Your task to perform on an android device: open a bookmark in the chrome app Image 0: 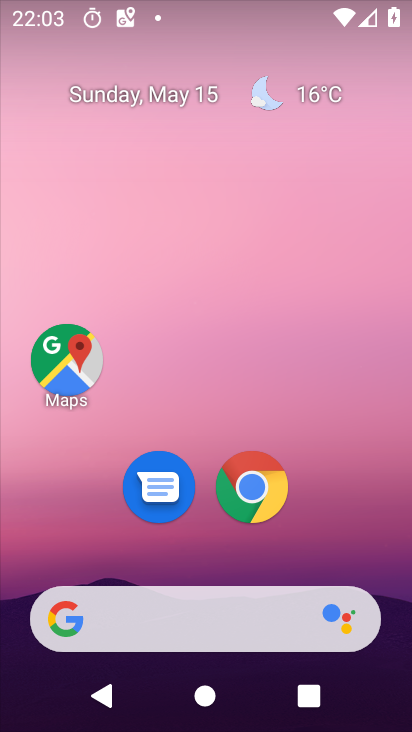
Step 0: click (30, 359)
Your task to perform on an android device: open a bookmark in the chrome app Image 1: 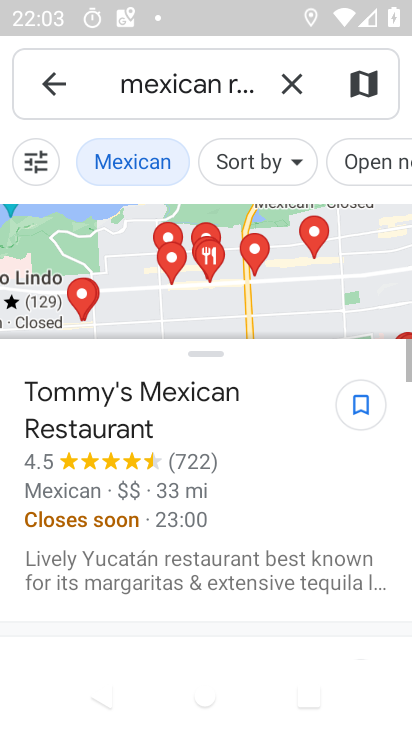
Step 1: press home button
Your task to perform on an android device: open a bookmark in the chrome app Image 2: 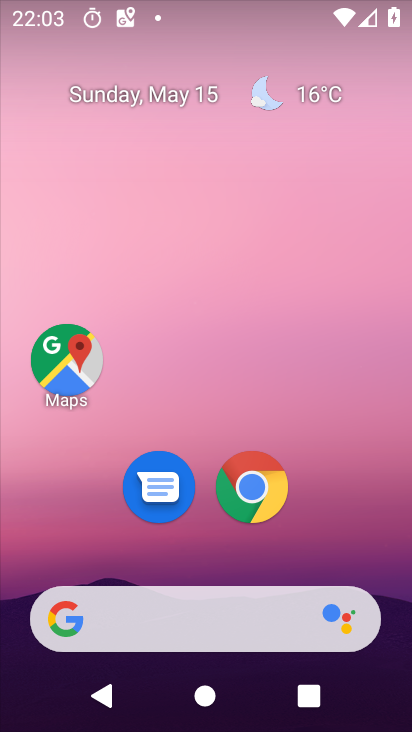
Step 2: click (244, 464)
Your task to perform on an android device: open a bookmark in the chrome app Image 3: 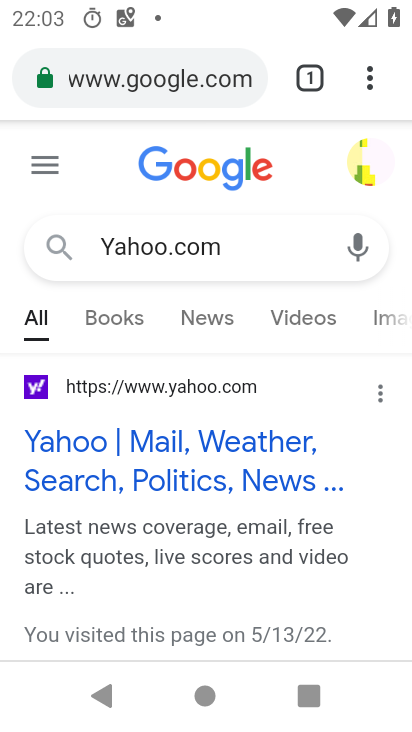
Step 3: click (366, 74)
Your task to perform on an android device: open a bookmark in the chrome app Image 4: 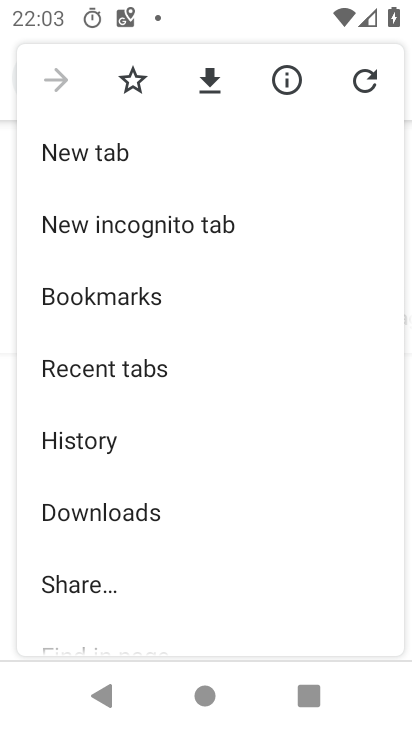
Step 4: click (101, 295)
Your task to perform on an android device: open a bookmark in the chrome app Image 5: 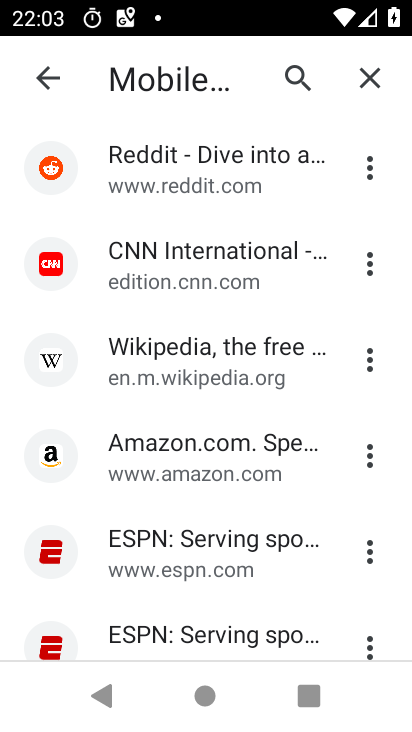
Step 5: click (120, 449)
Your task to perform on an android device: open a bookmark in the chrome app Image 6: 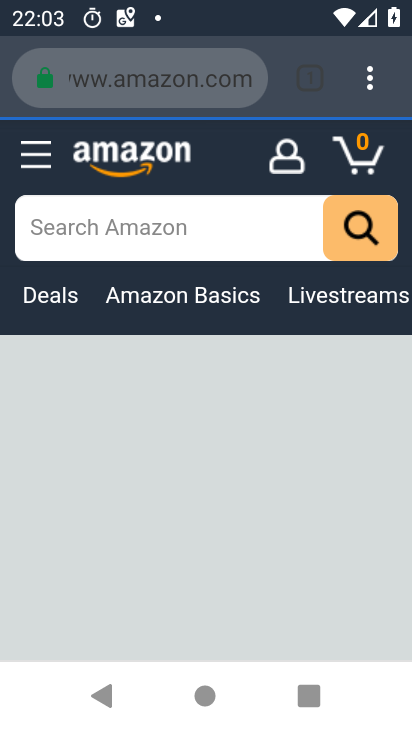
Step 6: task complete